Your task to perform on an android device: Go to Amazon Image 0: 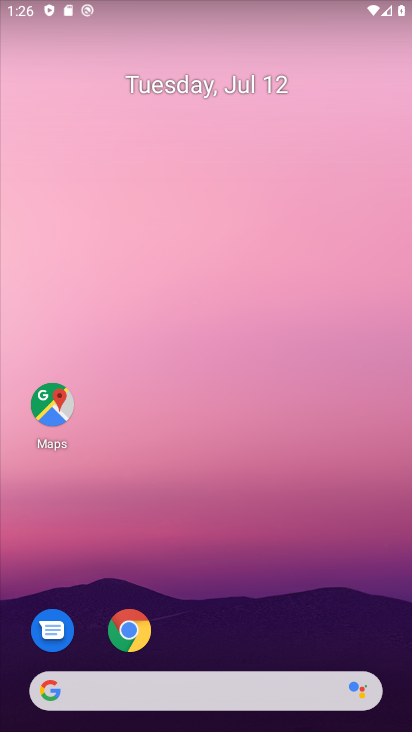
Step 0: click (130, 630)
Your task to perform on an android device: Go to Amazon Image 1: 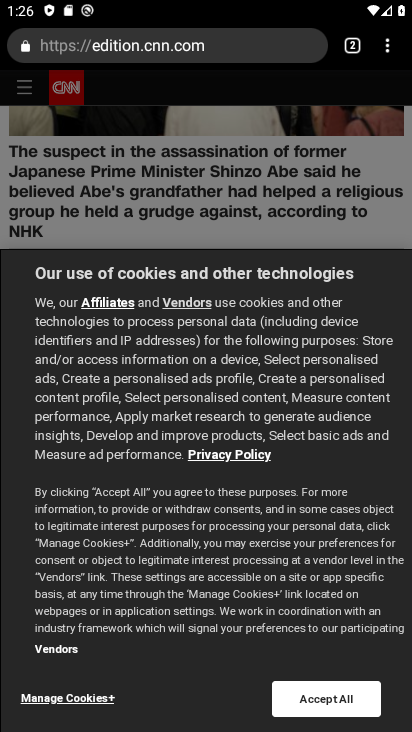
Step 1: click (231, 48)
Your task to perform on an android device: Go to Amazon Image 2: 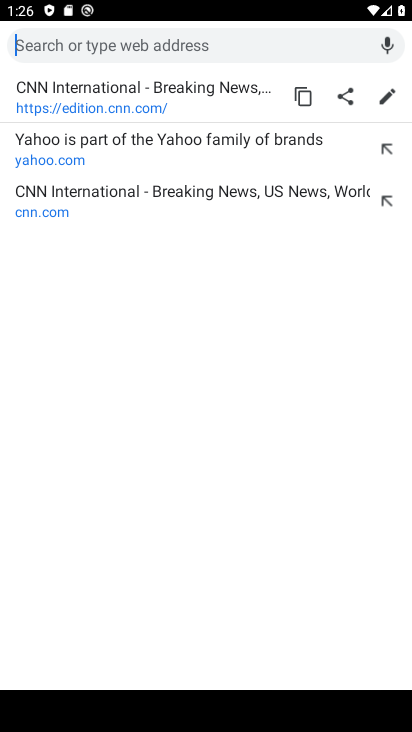
Step 2: type "Amazon"
Your task to perform on an android device: Go to Amazon Image 3: 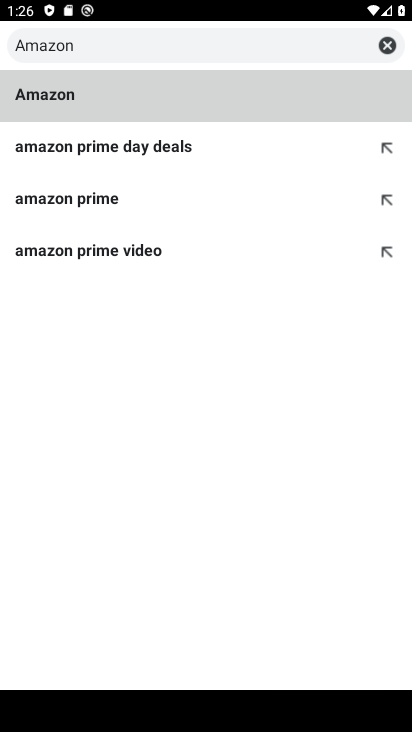
Step 3: click (65, 99)
Your task to perform on an android device: Go to Amazon Image 4: 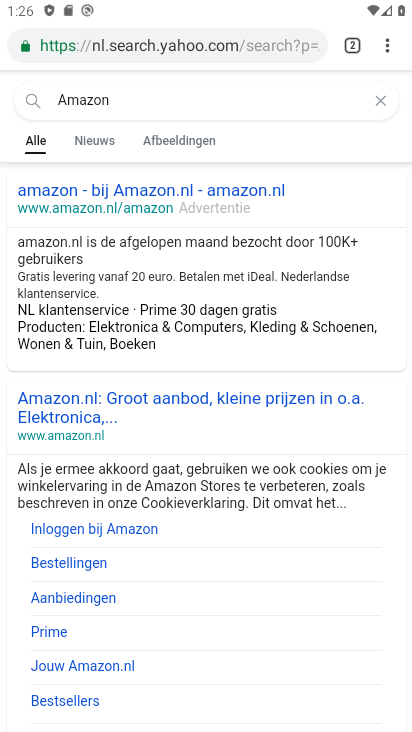
Step 4: click (82, 195)
Your task to perform on an android device: Go to Amazon Image 5: 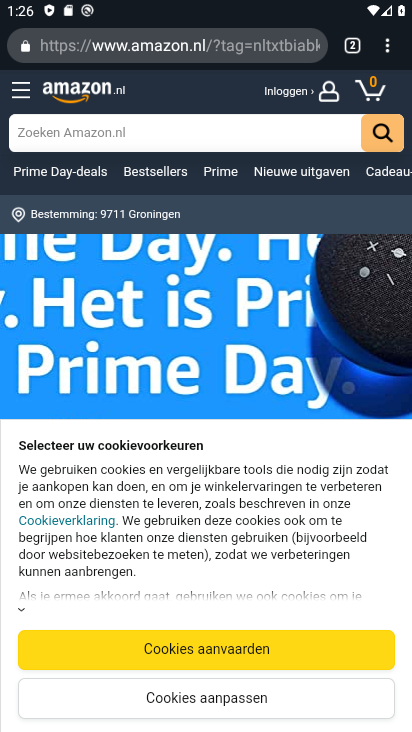
Step 5: task complete